Your task to perform on an android device: toggle notification dots Image 0: 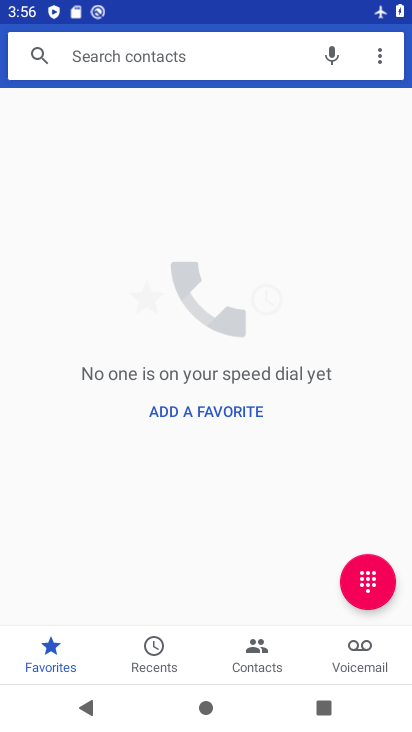
Step 0: click (116, 569)
Your task to perform on an android device: toggle notification dots Image 1: 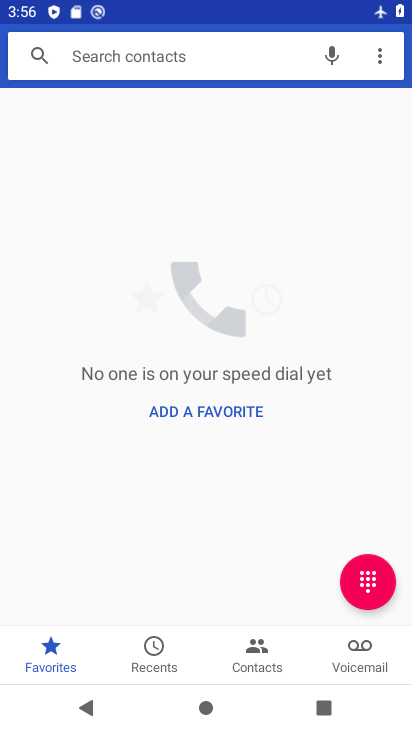
Step 1: press home button
Your task to perform on an android device: toggle notification dots Image 2: 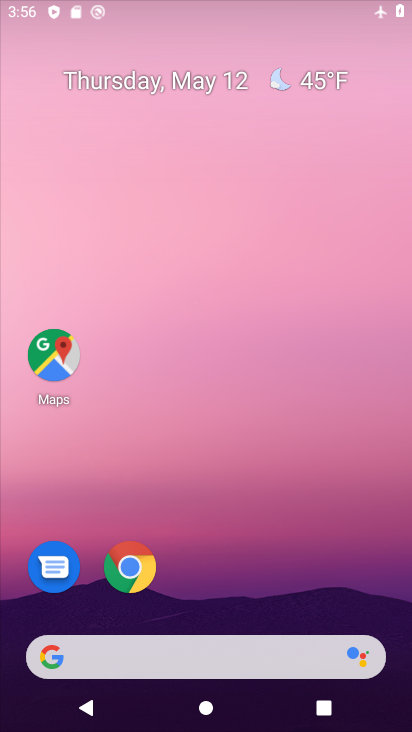
Step 2: drag from (218, 568) to (213, 144)
Your task to perform on an android device: toggle notification dots Image 3: 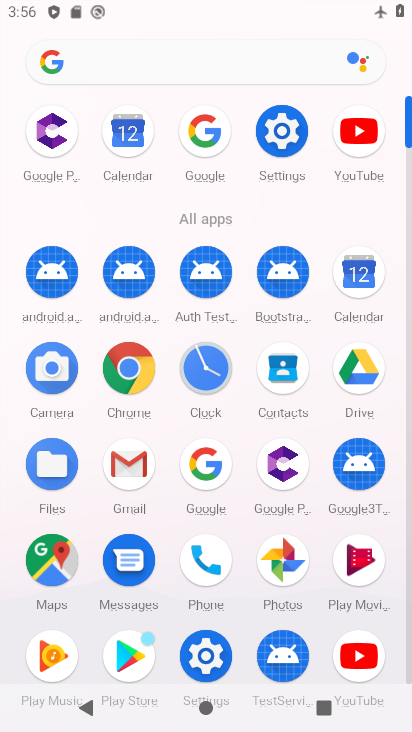
Step 3: click (261, 137)
Your task to perform on an android device: toggle notification dots Image 4: 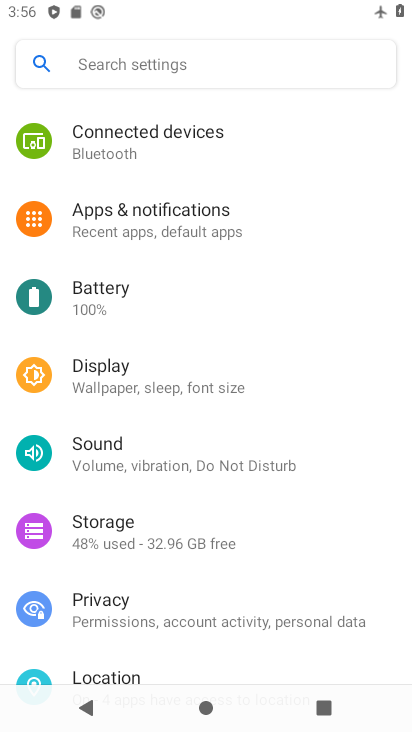
Step 4: click (196, 234)
Your task to perform on an android device: toggle notification dots Image 5: 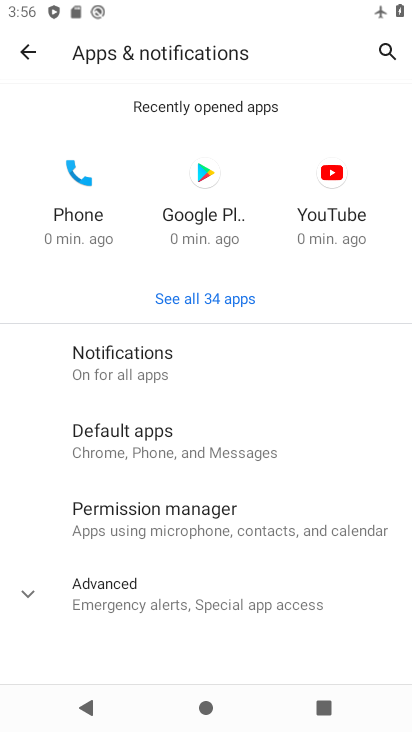
Step 5: drag from (251, 509) to (269, 225)
Your task to perform on an android device: toggle notification dots Image 6: 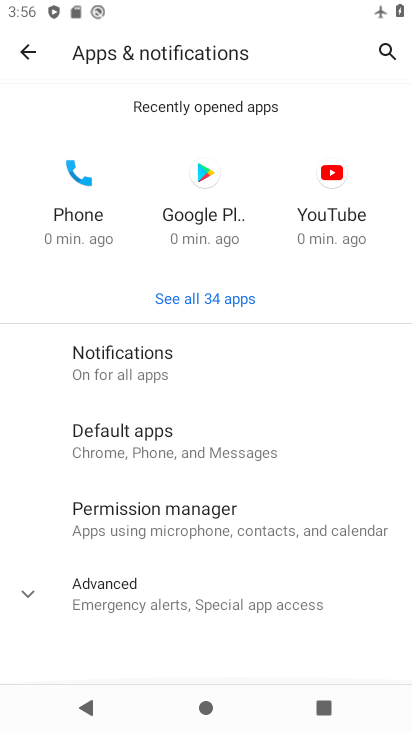
Step 6: click (96, 337)
Your task to perform on an android device: toggle notification dots Image 7: 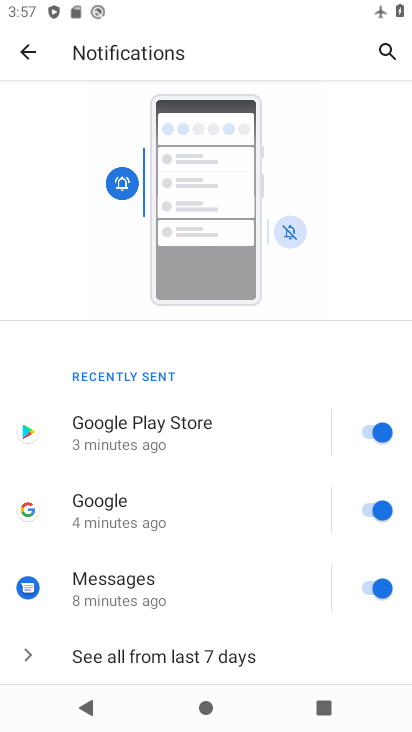
Step 7: drag from (216, 637) to (232, 329)
Your task to perform on an android device: toggle notification dots Image 8: 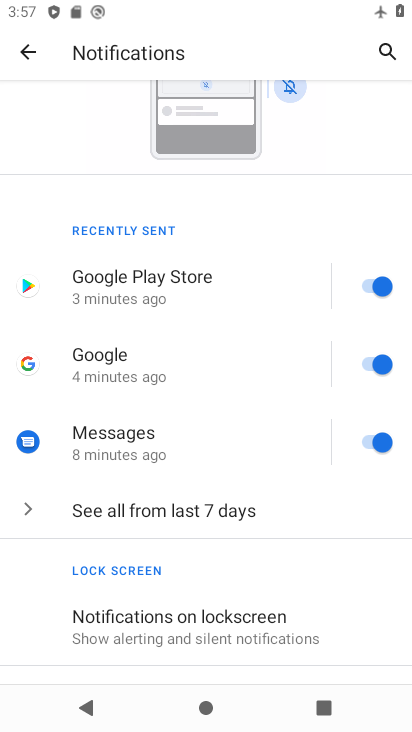
Step 8: drag from (281, 603) to (283, 381)
Your task to perform on an android device: toggle notification dots Image 9: 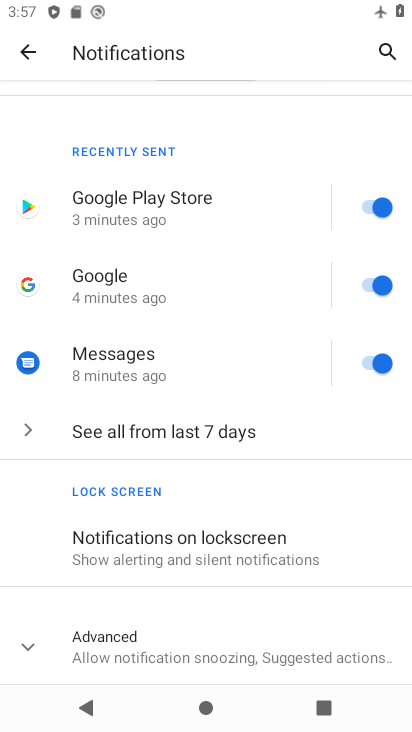
Step 9: click (233, 642)
Your task to perform on an android device: toggle notification dots Image 10: 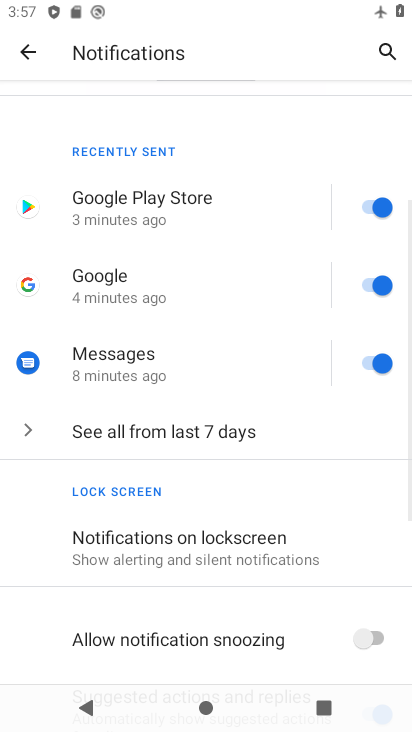
Step 10: drag from (271, 614) to (276, 429)
Your task to perform on an android device: toggle notification dots Image 11: 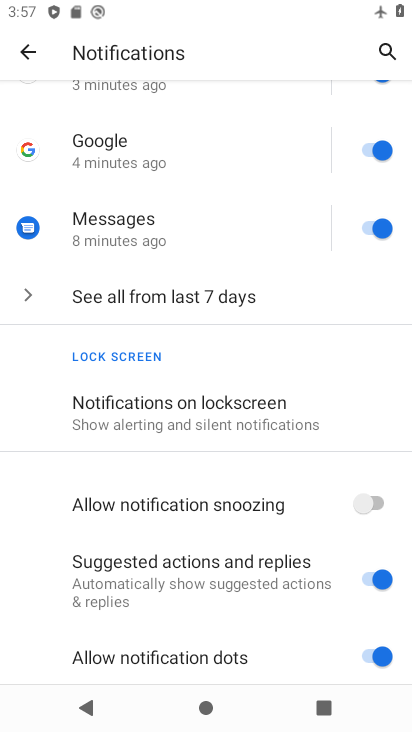
Step 11: click (362, 652)
Your task to perform on an android device: toggle notification dots Image 12: 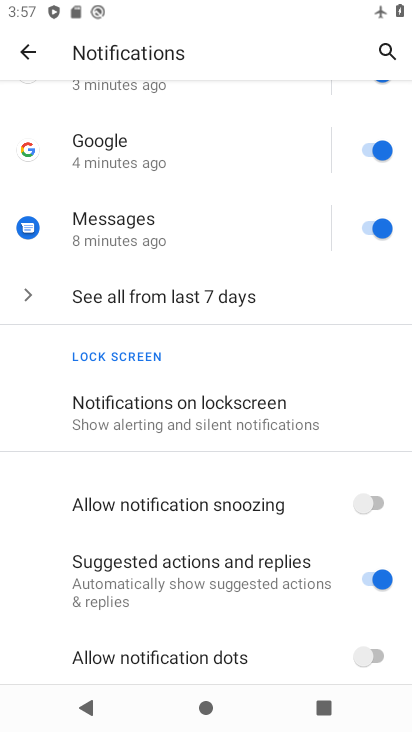
Step 12: task complete